Your task to perform on an android device: Go to Amazon Image 0: 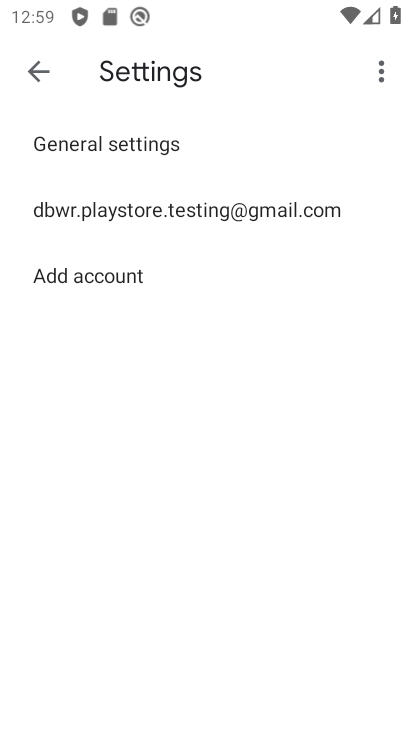
Step 0: press back button
Your task to perform on an android device: Go to Amazon Image 1: 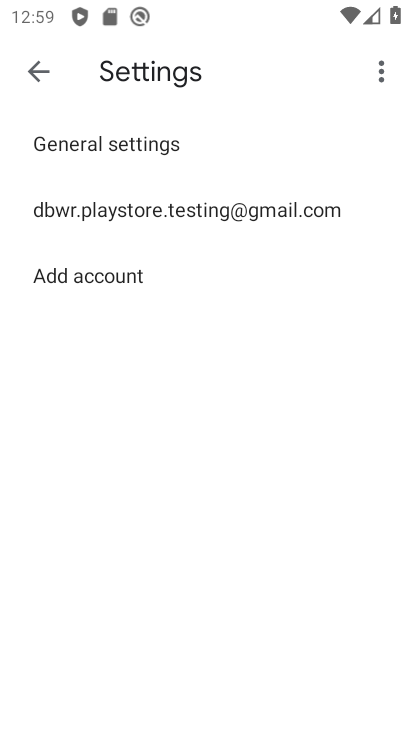
Step 1: press home button
Your task to perform on an android device: Go to Amazon Image 2: 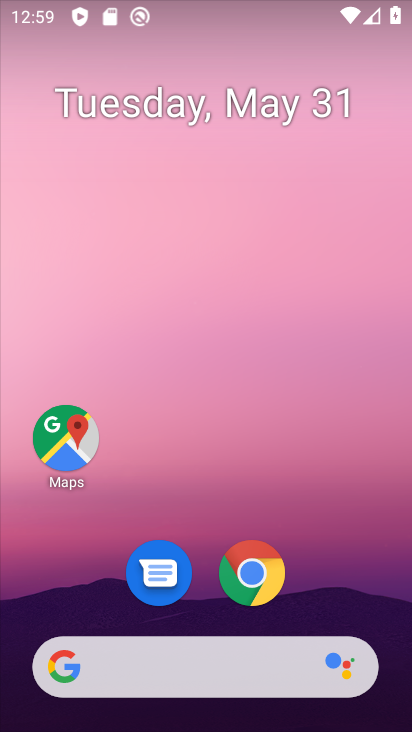
Step 2: drag from (365, 587) to (356, 176)
Your task to perform on an android device: Go to Amazon Image 3: 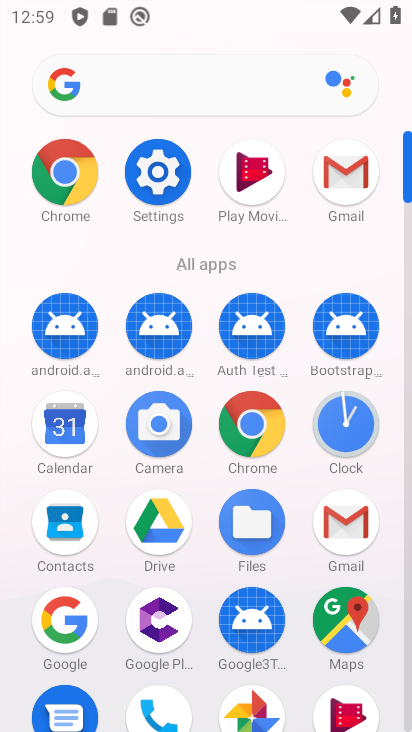
Step 3: click (268, 443)
Your task to perform on an android device: Go to Amazon Image 4: 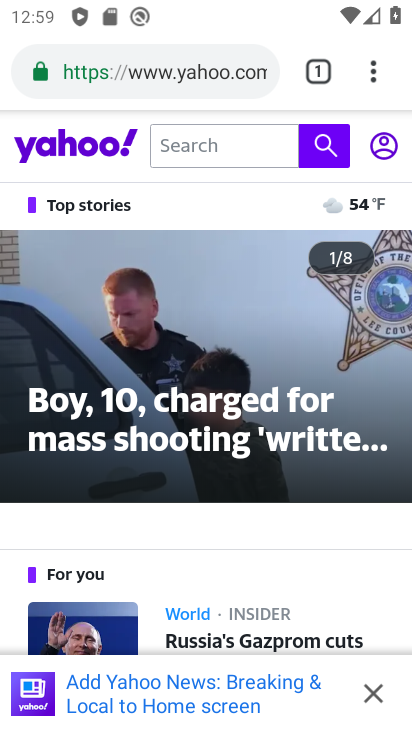
Step 4: press back button
Your task to perform on an android device: Go to Amazon Image 5: 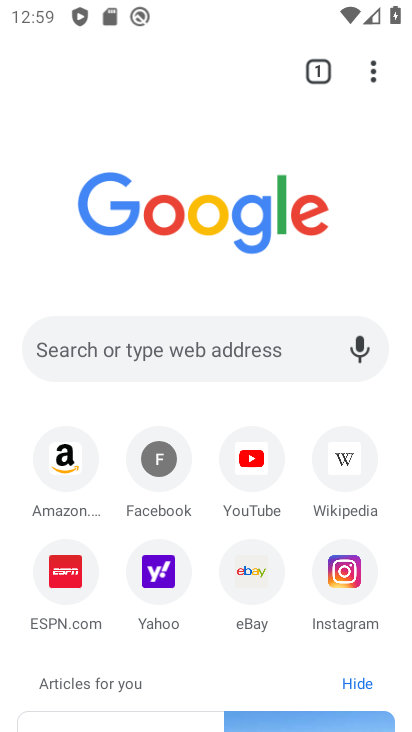
Step 5: click (72, 462)
Your task to perform on an android device: Go to Amazon Image 6: 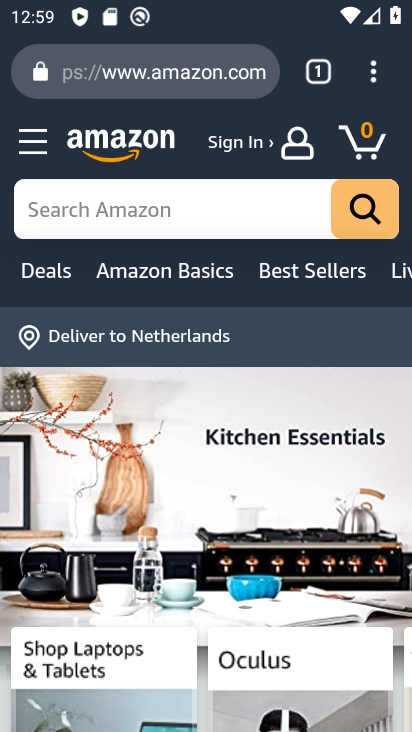
Step 6: task complete